Your task to perform on an android device: read, delete, or share a saved page in the chrome app Image 0: 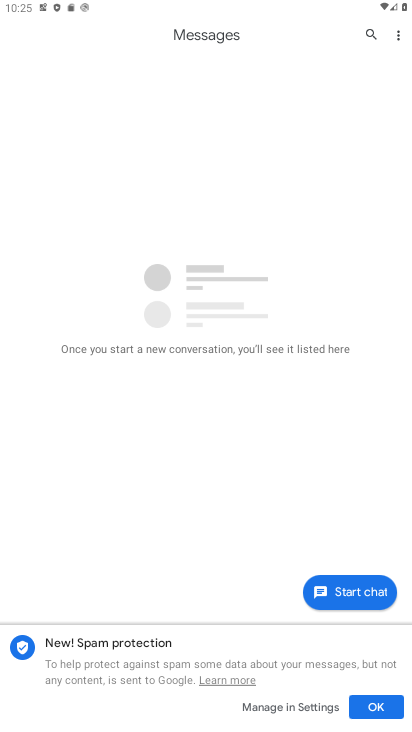
Step 0: click (283, 514)
Your task to perform on an android device: read, delete, or share a saved page in the chrome app Image 1: 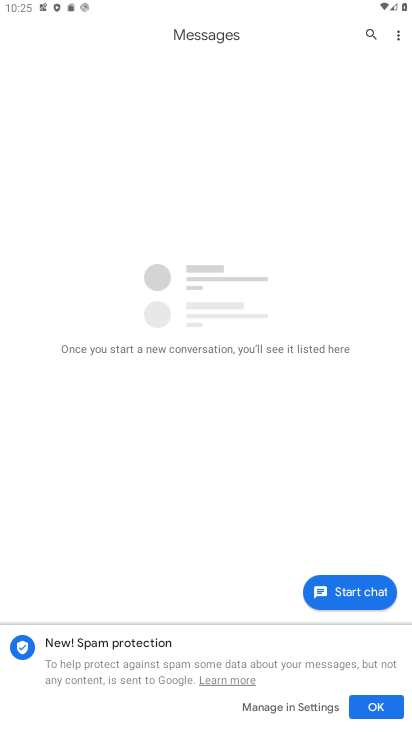
Step 1: press back button
Your task to perform on an android device: read, delete, or share a saved page in the chrome app Image 2: 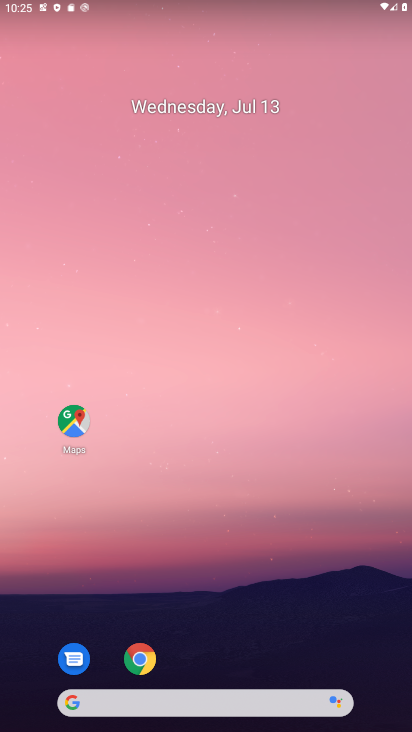
Step 2: drag from (249, 655) to (214, 104)
Your task to perform on an android device: read, delete, or share a saved page in the chrome app Image 3: 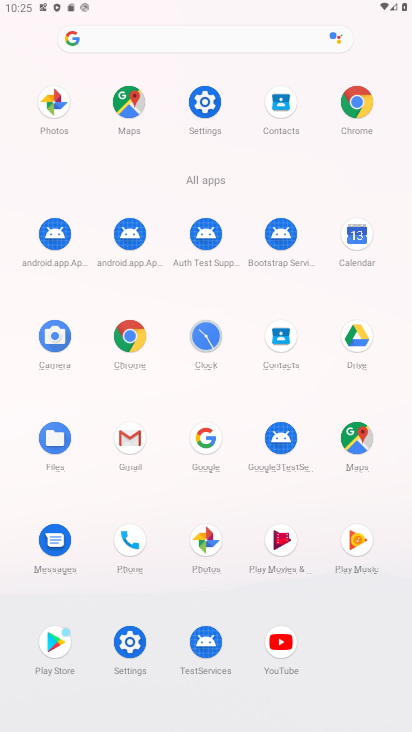
Step 3: click (357, 111)
Your task to perform on an android device: read, delete, or share a saved page in the chrome app Image 4: 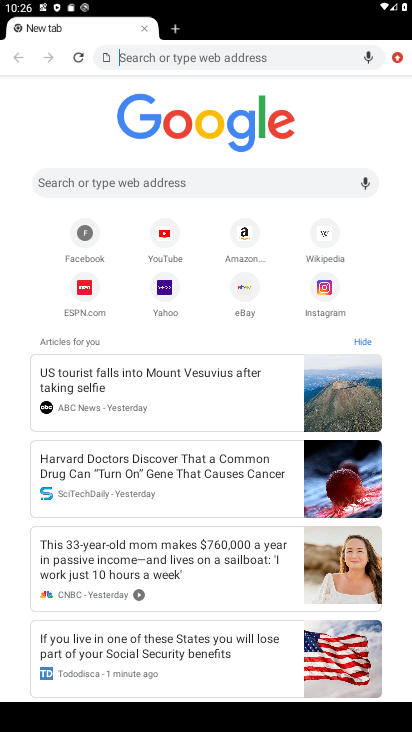
Step 4: drag from (395, 51) to (278, 228)
Your task to perform on an android device: read, delete, or share a saved page in the chrome app Image 5: 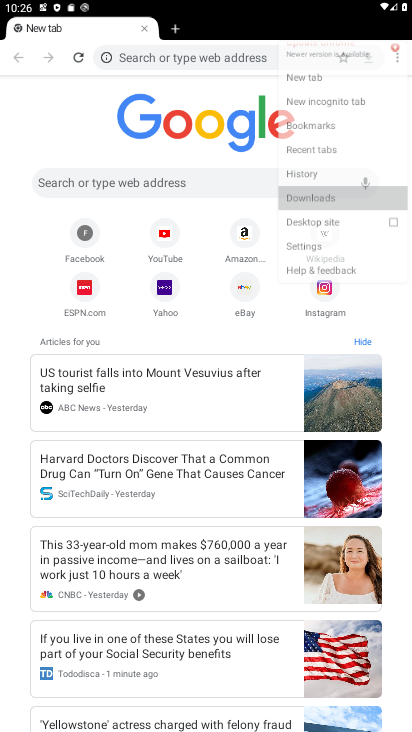
Step 5: click (280, 228)
Your task to perform on an android device: read, delete, or share a saved page in the chrome app Image 6: 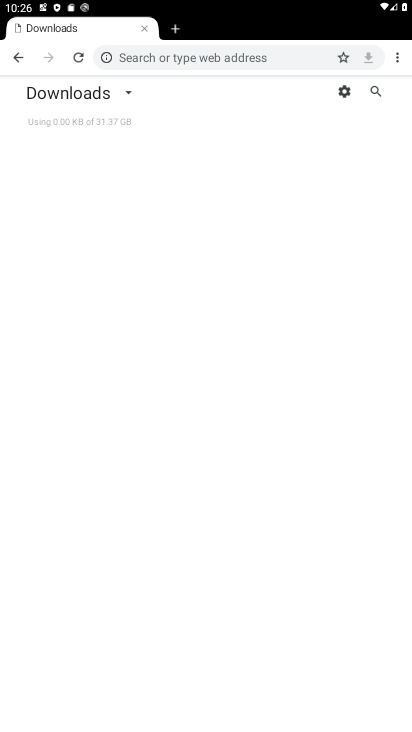
Step 6: click (122, 95)
Your task to perform on an android device: read, delete, or share a saved page in the chrome app Image 7: 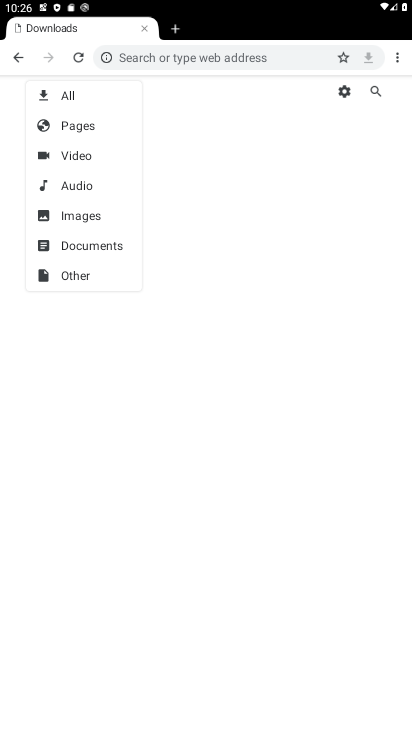
Step 7: click (90, 151)
Your task to perform on an android device: read, delete, or share a saved page in the chrome app Image 8: 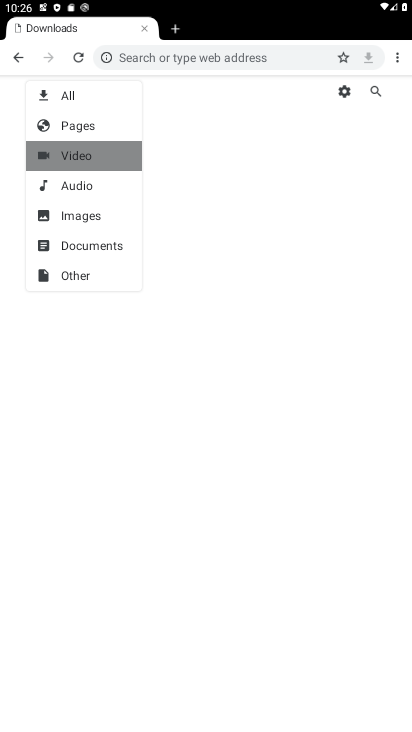
Step 8: click (88, 151)
Your task to perform on an android device: read, delete, or share a saved page in the chrome app Image 9: 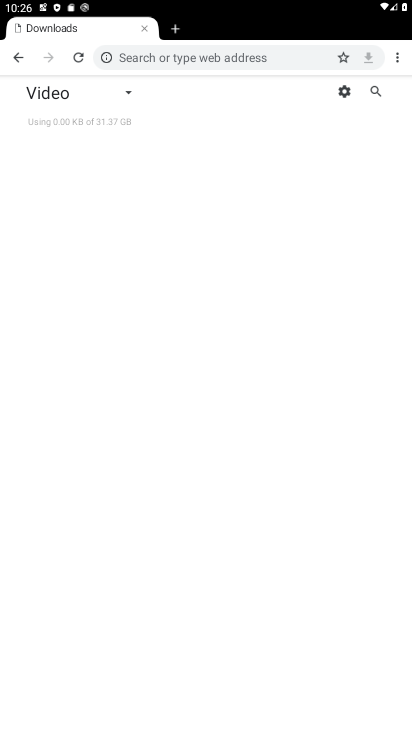
Step 9: click (88, 151)
Your task to perform on an android device: read, delete, or share a saved page in the chrome app Image 10: 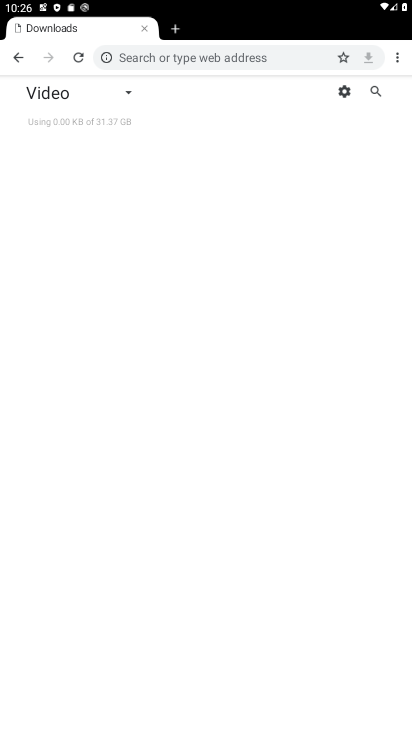
Step 10: task complete